Your task to perform on an android device: set the stopwatch Image 0: 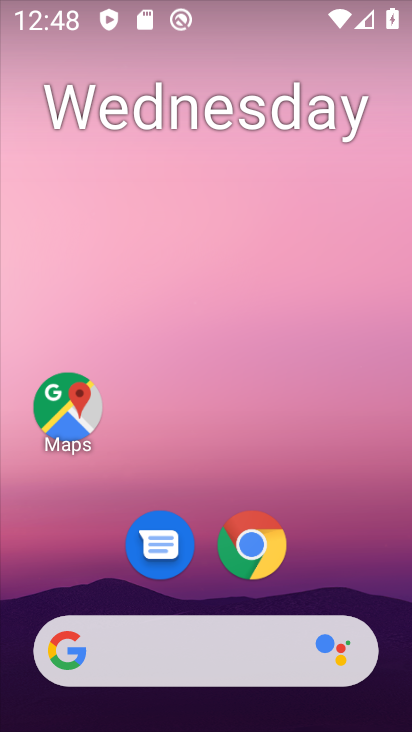
Step 0: drag from (205, 575) to (200, 193)
Your task to perform on an android device: set the stopwatch Image 1: 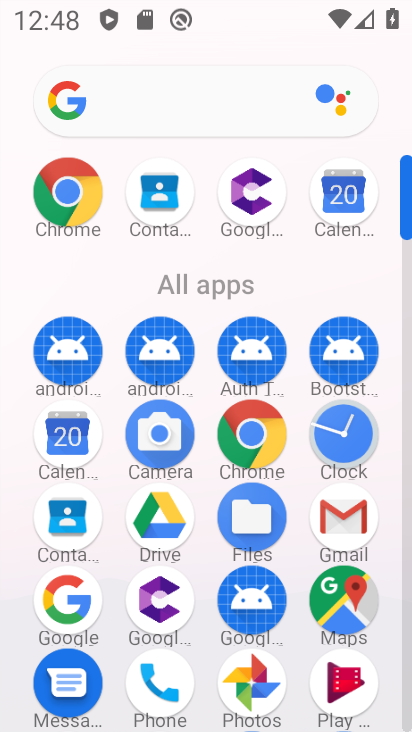
Step 1: click (321, 433)
Your task to perform on an android device: set the stopwatch Image 2: 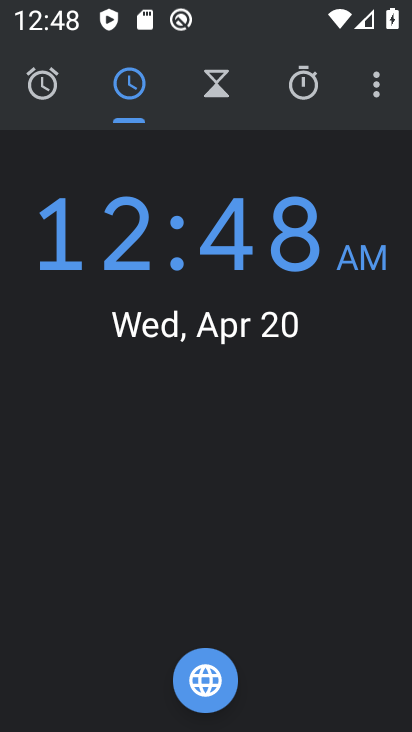
Step 2: click (292, 91)
Your task to perform on an android device: set the stopwatch Image 3: 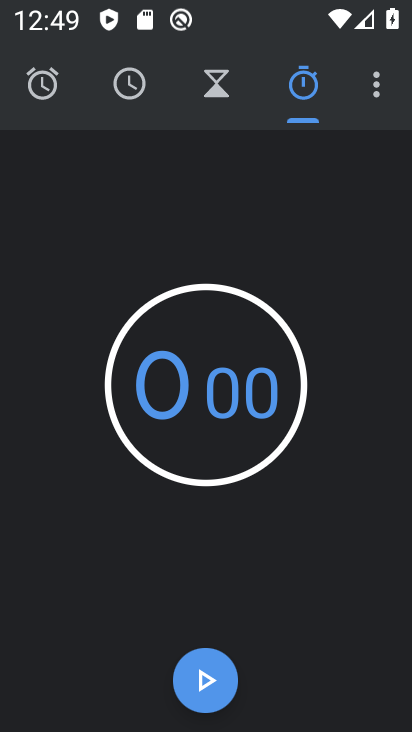
Step 3: task complete